Your task to perform on an android device: Open ESPN.com Image 0: 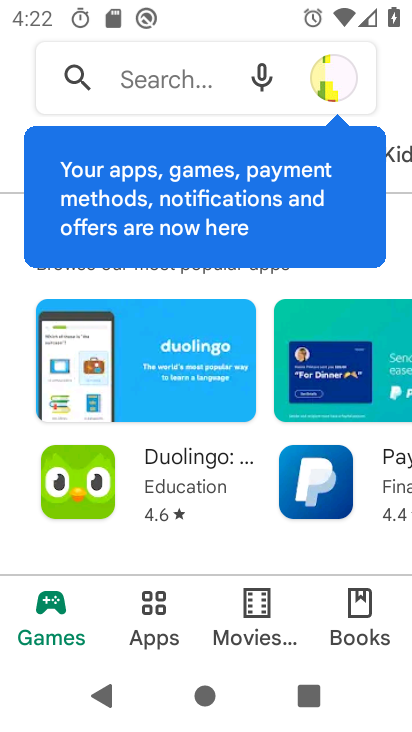
Step 0: press home button
Your task to perform on an android device: Open ESPN.com Image 1: 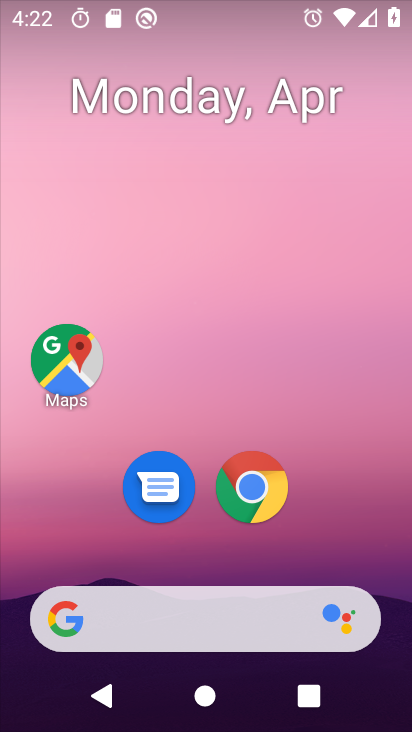
Step 1: drag from (367, 454) to (371, 56)
Your task to perform on an android device: Open ESPN.com Image 2: 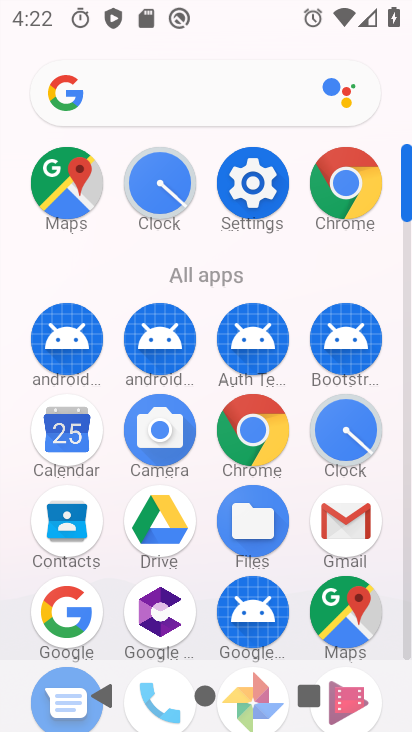
Step 2: click (352, 201)
Your task to perform on an android device: Open ESPN.com Image 3: 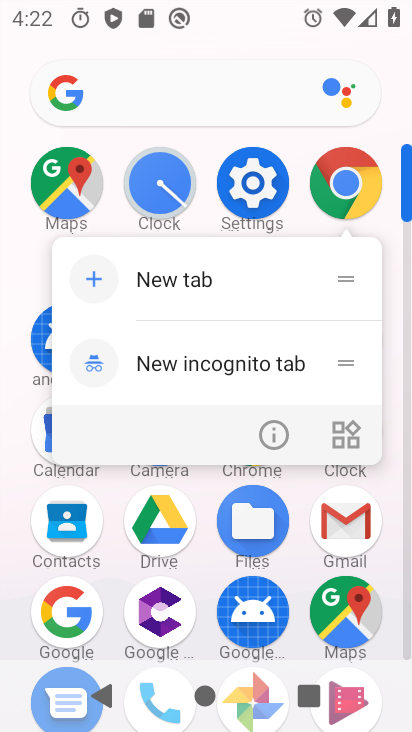
Step 3: click (351, 200)
Your task to perform on an android device: Open ESPN.com Image 4: 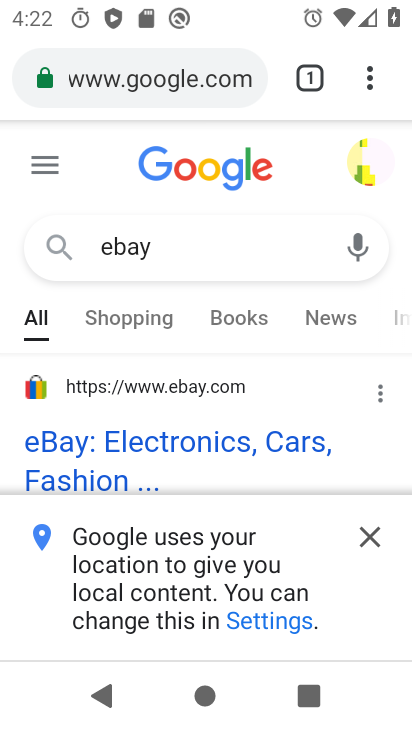
Step 4: click (210, 85)
Your task to perform on an android device: Open ESPN.com Image 5: 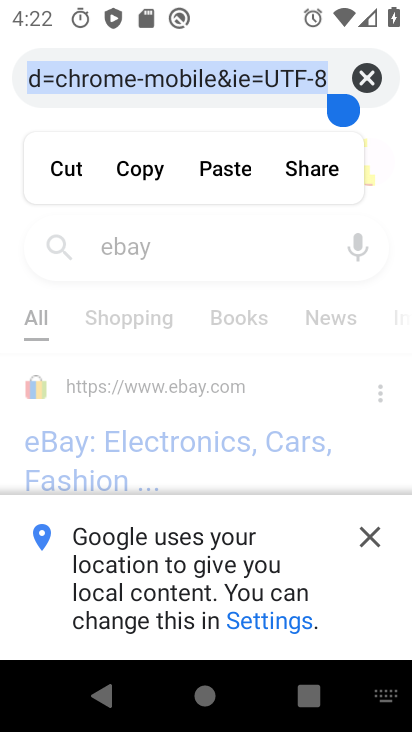
Step 5: click (374, 76)
Your task to perform on an android device: Open ESPN.com Image 6: 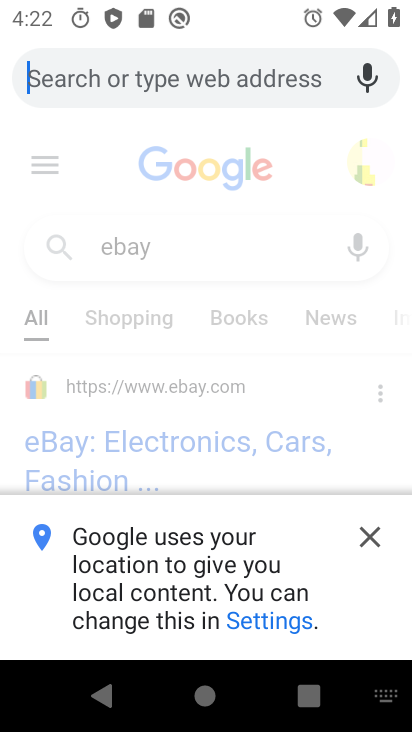
Step 6: type "espn.com"
Your task to perform on an android device: Open ESPN.com Image 7: 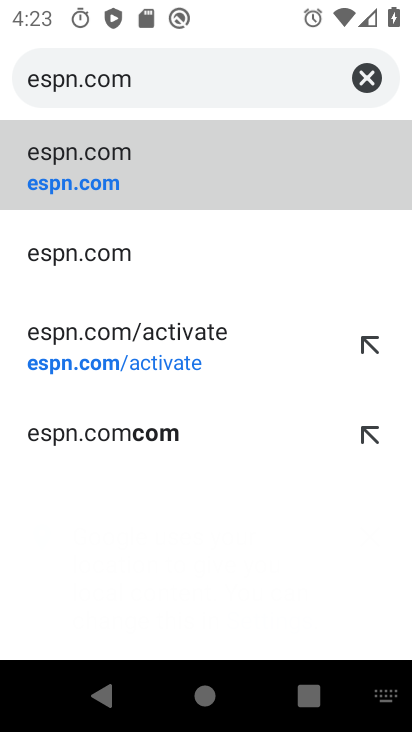
Step 7: click (107, 245)
Your task to perform on an android device: Open ESPN.com Image 8: 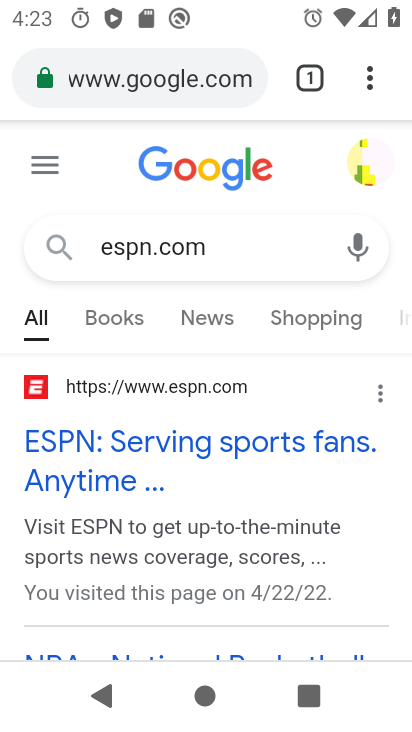
Step 8: task complete